Your task to perform on an android device: Check the best rated table lamp on Crate and Barrel Image 0: 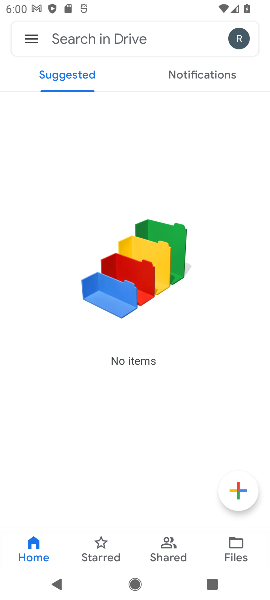
Step 0: press home button
Your task to perform on an android device: Check the best rated table lamp on Crate and Barrel Image 1: 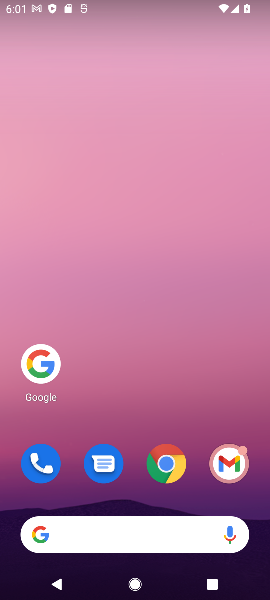
Step 1: click (44, 365)
Your task to perform on an android device: Check the best rated table lamp on Crate and Barrel Image 2: 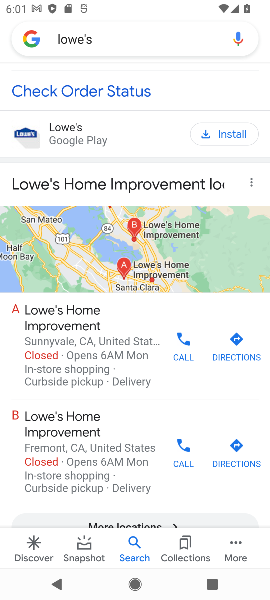
Step 2: click (124, 32)
Your task to perform on an android device: Check the best rated table lamp on Crate and Barrel Image 3: 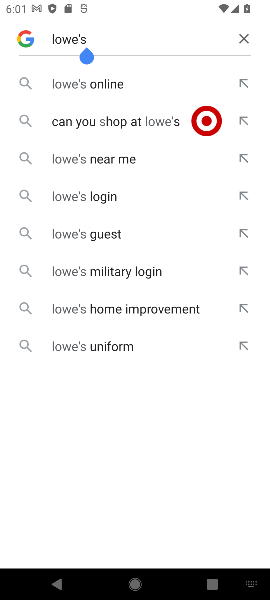
Step 3: click (244, 31)
Your task to perform on an android device: Check the best rated table lamp on Crate and Barrel Image 4: 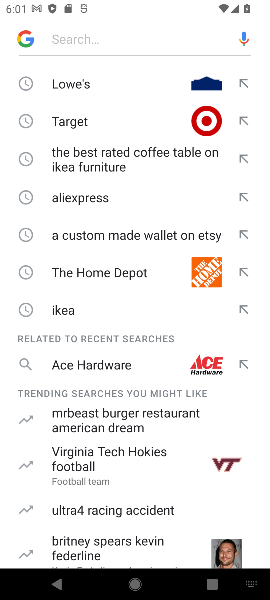
Step 4: click (146, 39)
Your task to perform on an android device: Check the best rated table lamp on Crate and Barrel Image 5: 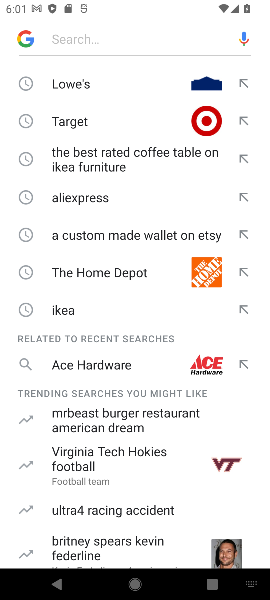
Step 5: type " best rated table lamp on Crate and Barrel "
Your task to perform on an android device: Check the best rated table lamp on Crate and Barrel Image 6: 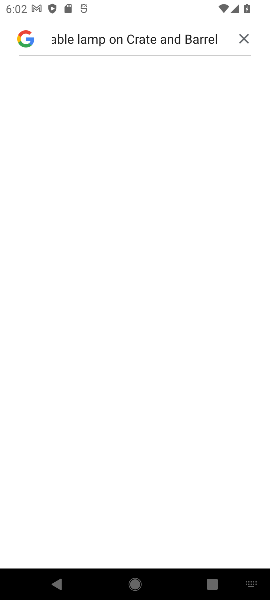
Step 6: click (237, 41)
Your task to perform on an android device: Check the best rated table lamp on Crate and Barrel Image 7: 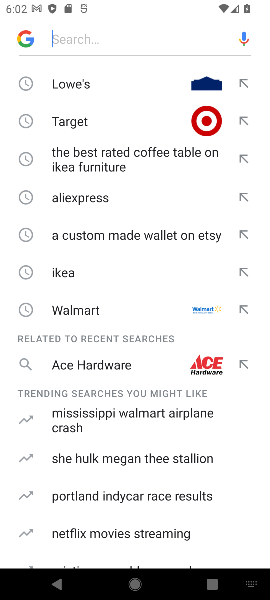
Step 7: click (126, 21)
Your task to perform on an android device: Check the best rated table lamp on Crate and Barrel Image 8: 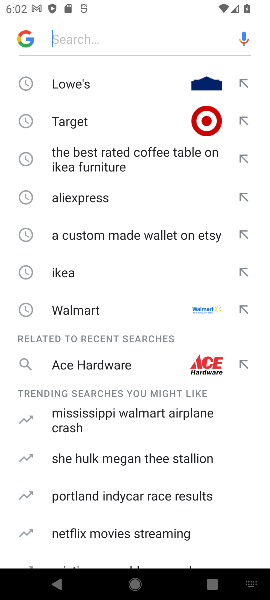
Step 8: type "best rated table lamp "
Your task to perform on an android device: Check the best rated table lamp on Crate and Barrel Image 9: 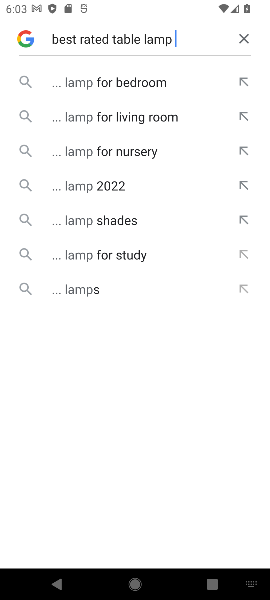
Step 9: click (114, 106)
Your task to perform on an android device: Check the best rated table lamp on Crate and Barrel Image 10: 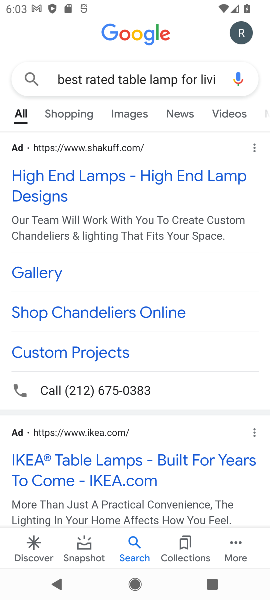
Step 10: drag from (137, 452) to (180, 246)
Your task to perform on an android device: Check the best rated table lamp on Crate and Barrel Image 11: 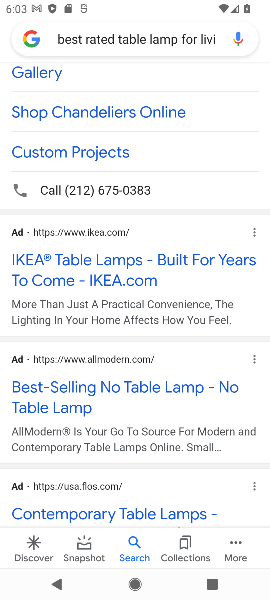
Step 11: drag from (118, 468) to (164, 201)
Your task to perform on an android device: Check the best rated table lamp on Crate and Barrel Image 12: 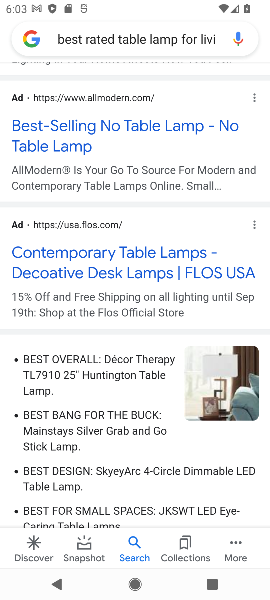
Step 12: drag from (113, 366) to (165, 118)
Your task to perform on an android device: Check the best rated table lamp on Crate and Barrel Image 13: 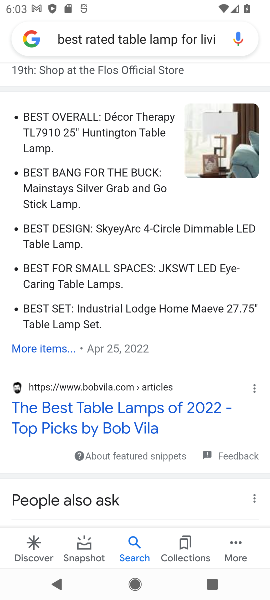
Step 13: drag from (91, 444) to (145, 117)
Your task to perform on an android device: Check the best rated table lamp on Crate and Barrel Image 14: 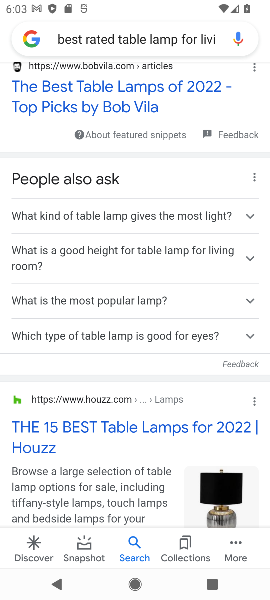
Step 14: drag from (167, 144) to (188, 71)
Your task to perform on an android device: Check the best rated table lamp on Crate and Barrel Image 15: 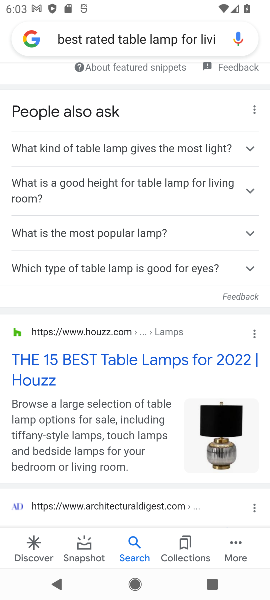
Step 15: drag from (103, 479) to (172, 156)
Your task to perform on an android device: Check the best rated table lamp on Crate and Barrel Image 16: 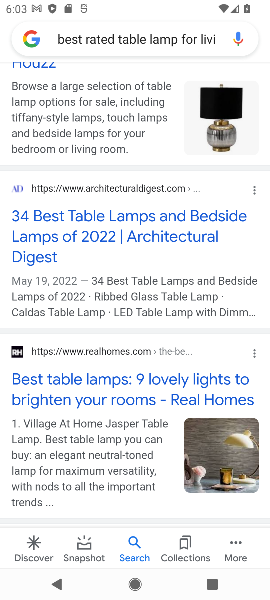
Step 16: drag from (159, 220) to (194, 114)
Your task to perform on an android device: Check the best rated table lamp on Crate and Barrel Image 17: 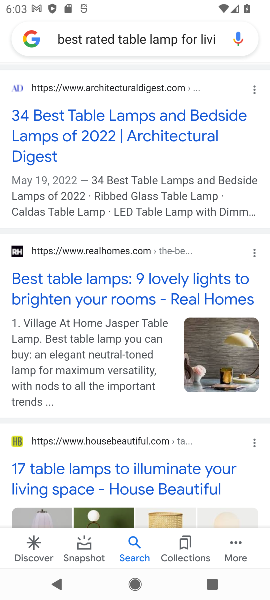
Step 17: drag from (112, 466) to (161, 151)
Your task to perform on an android device: Check the best rated table lamp on Crate and Barrel Image 18: 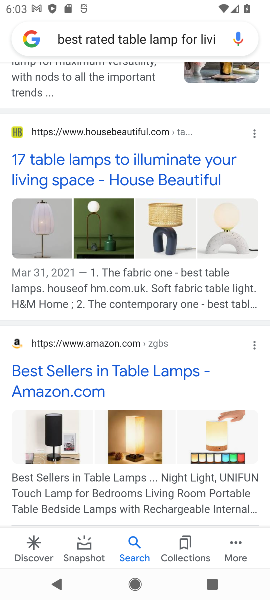
Step 18: drag from (83, 463) to (146, 54)
Your task to perform on an android device: Check the best rated table lamp on Crate and Barrel Image 19: 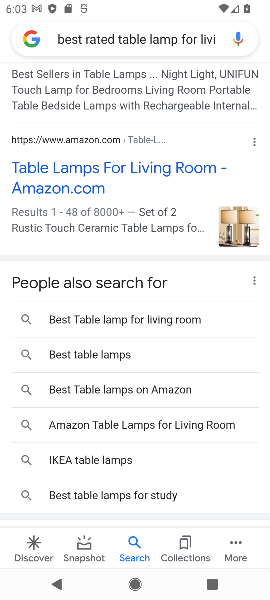
Step 19: drag from (102, 477) to (149, 226)
Your task to perform on an android device: Check the best rated table lamp on Crate and Barrel Image 20: 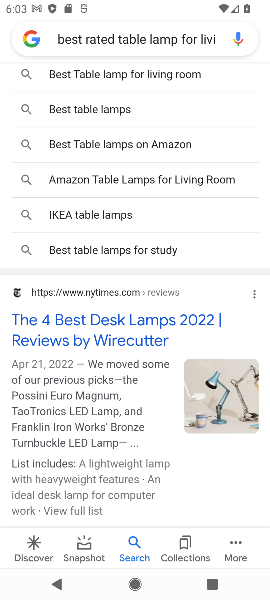
Step 20: drag from (102, 468) to (164, 199)
Your task to perform on an android device: Check the best rated table lamp on Crate and Barrel Image 21: 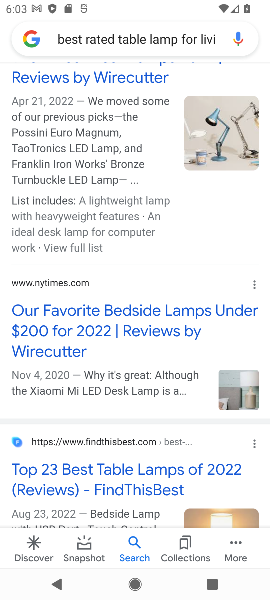
Step 21: drag from (145, 499) to (178, 154)
Your task to perform on an android device: Check the best rated table lamp on Crate and Barrel Image 22: 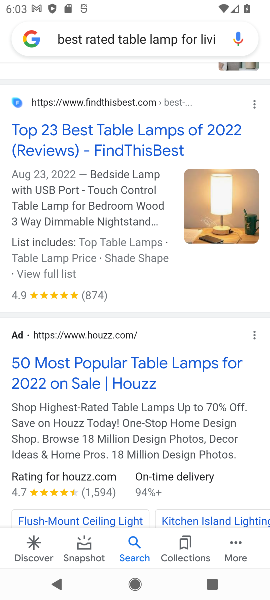
Step 22: drag from (128, 436) to (164, 136)
Your task to perform on an android device: Check the best rated table lamp on Crate and Barrel Image 23: 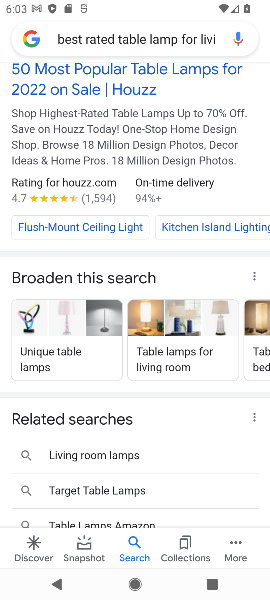
Step 23: drag from (138, 434) to (183, 75)
Your task to perform on an android device: Check the best rated table lamp on Crate and Barrel Image 24: 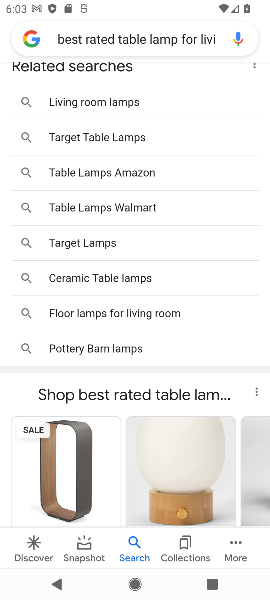
Step 24: drag from (131, 402) to (182, 48)
Your task to perform on an android device: Check the best rated table lamp on Crate and Barrel Image 25: 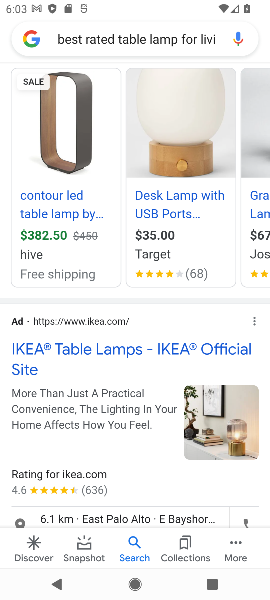
Step 25: drag from (96, 498) to (184, 206)
Your task to perform on an android device: Check the best rated table lamp on Crate and Barrel Image 26: 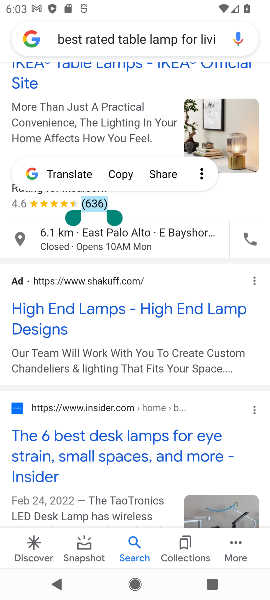
Step 26: click (96, 450)
Your task to perform on an android device: Check the best rated table lamp on Crate and Barrel Image 27: 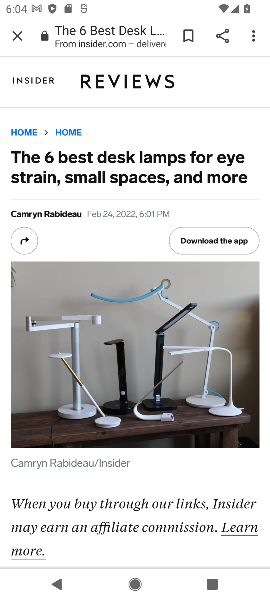
Step 27: task complete